Your task to perform on an android device: turn on improve location accuracy Image 0: 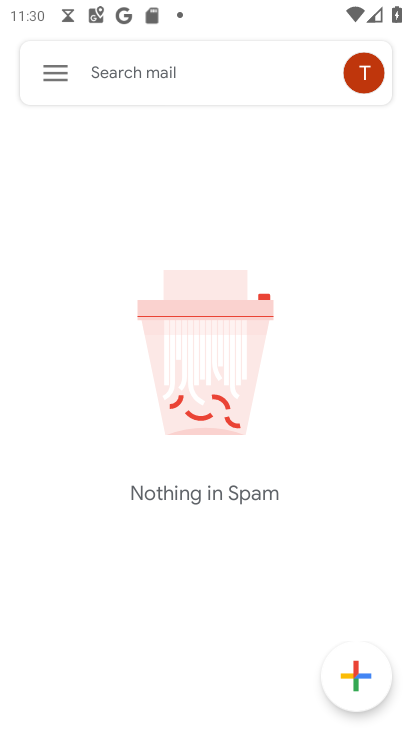
Step 0: press home button
Your task to perform on an android device: turn on improve location accuracy Image 1: 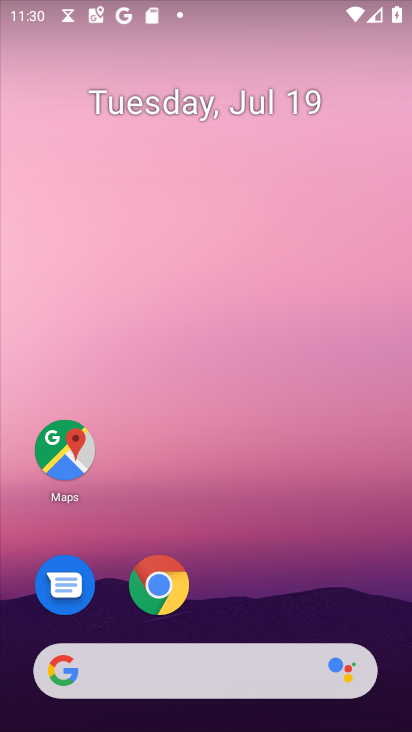
Step 1: drag from (166, 668) to (266, 138)
Your task to perform on an android device: turn on improve location accuracy Image 2: 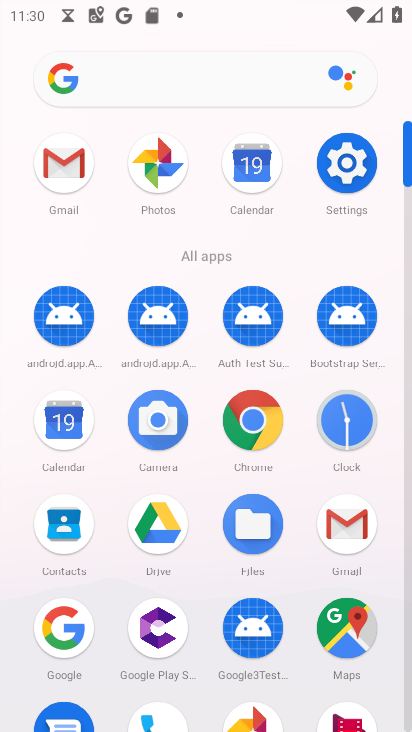
Step 2: click (337, 156)
Your task to perform on an android device: turn on improve location accuracy Image 3: 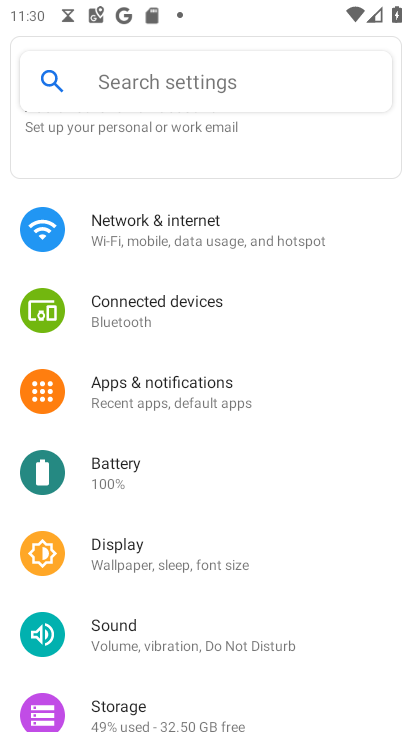
Step 3: drag from (268, 616) to (358, 102)
Your task to perform on an android device: turn on improve location accuracy Image 4: 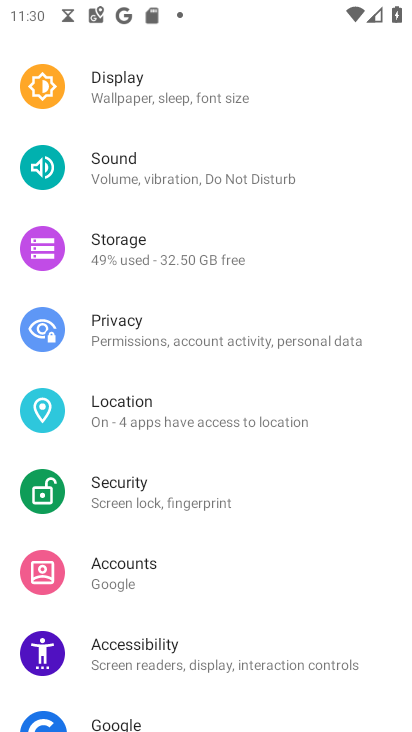
Step 4: click (144, 401)
Your task to perform on an android device: turn on improve location accuracy Image 5: 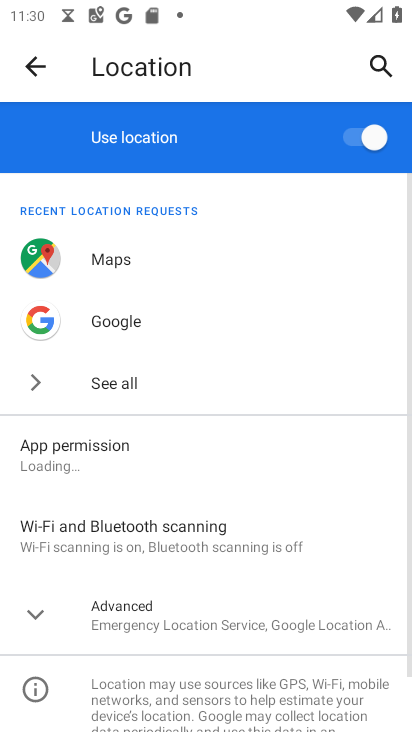
Step 5: drag from (246, 579) to (325, 209)
Your task to perform on an android device: turn on improve location accuracy Image 6: 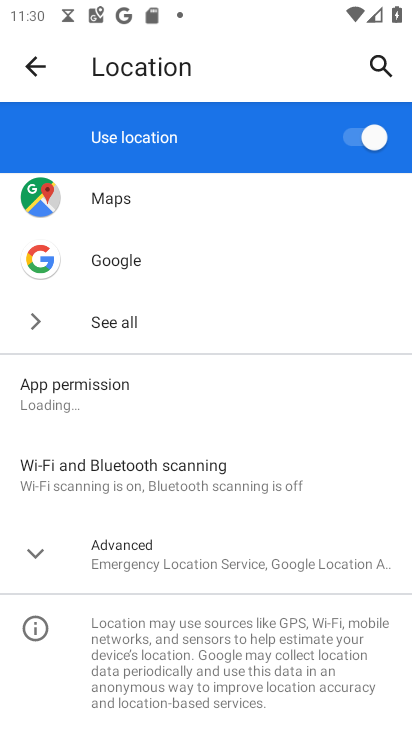
Step 6: click (173, 560)
Your task to perform on an android device: turn on improve location accuracy Image 7: 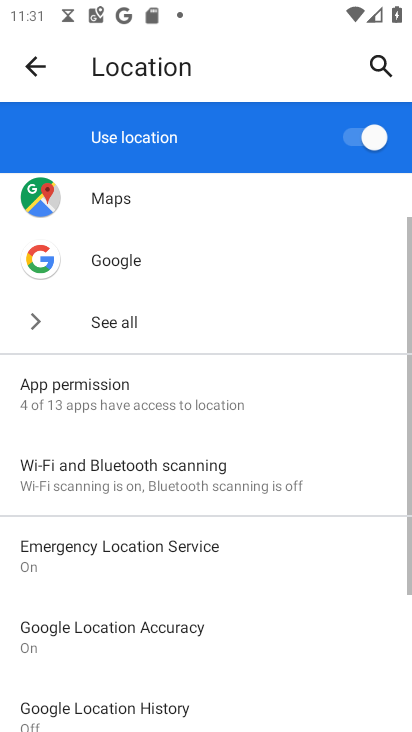
Step 7: drag from (261, 625) to (381, 209)
Your task to perform on an android device: turn on improve location accuracy Image 8: 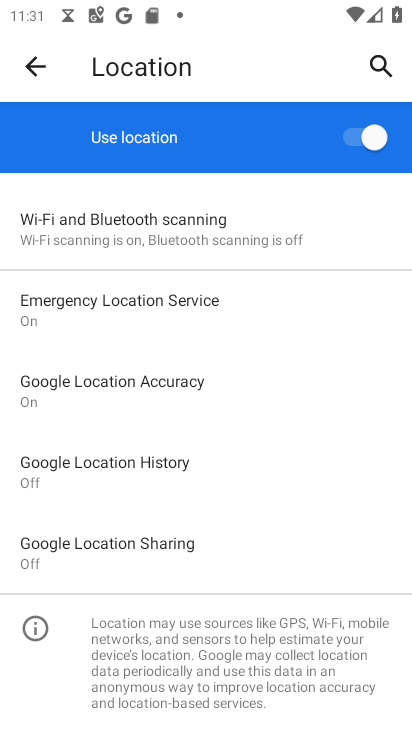
Step 8: click (157, 375)
Your task to perform on an android device: turn on improve location accuracy Image 9: 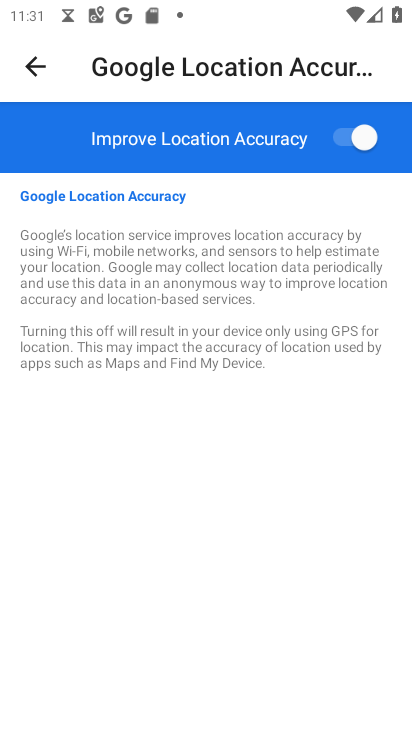
Step 9: task complete